Your task to perform on an android device: open a new tab in the chrome app Image 0: 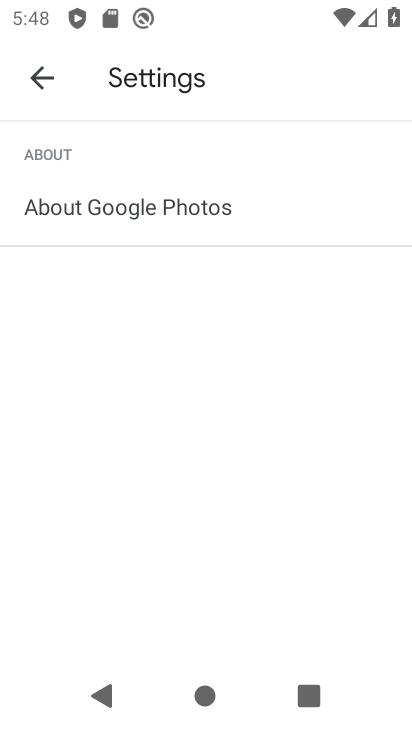
Step 0: drag from (193, 564) to (255, 66)
Your task to perform on an android device: open a new tab in the chrome app Image 1: 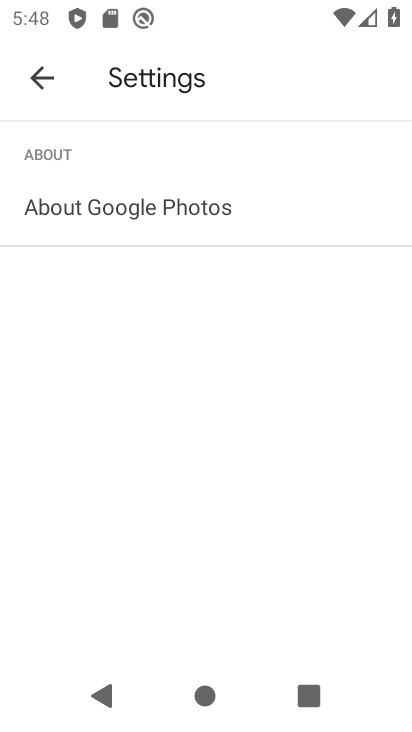
Step 1: press home button
Your task to perform on an android device: open a new tab in the chrome app Image 2: 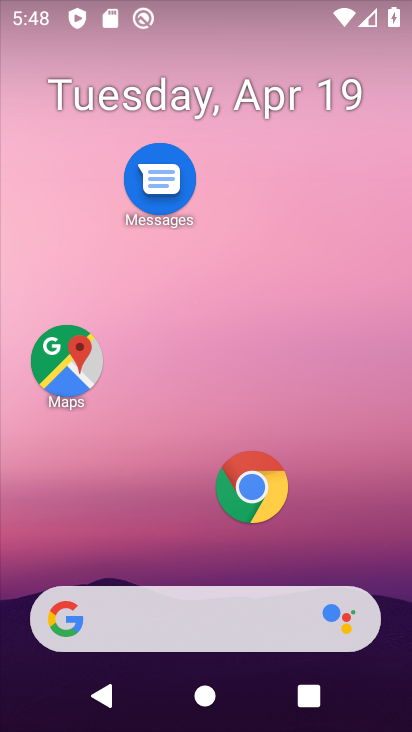
Step 2: click (249, 483)
Your task to perform on an android device: open a new tab in the chrome app Image 3: 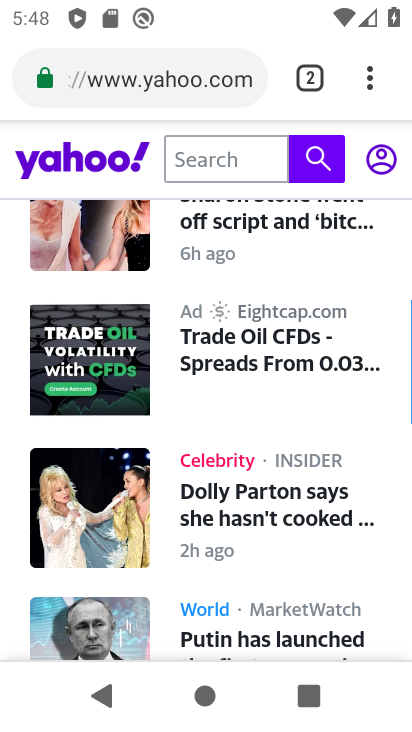
Step 3: click (312, 78)
Your task to perform on an android device: open a new tab in the chrome app Image 4: 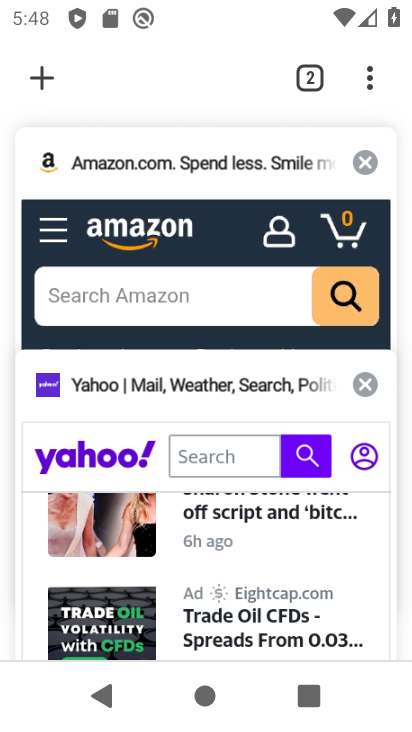
Step 4: click (45, 69)
Your task to perform on an android device: open a new tab in the chrome app Image 5: 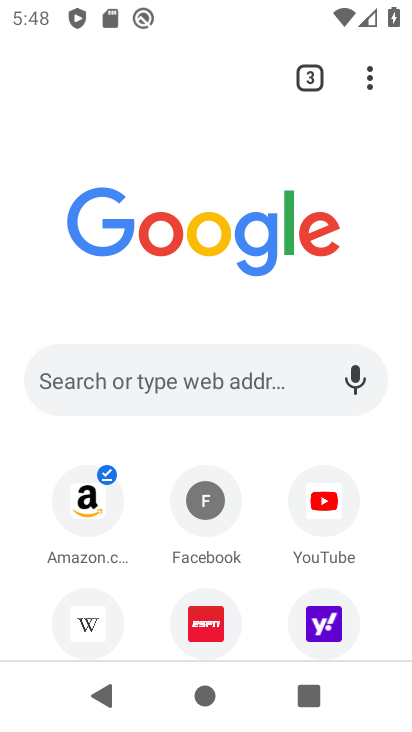
Step 5: task complete